Your task to perform on an android device: What's the weather? Image 0: 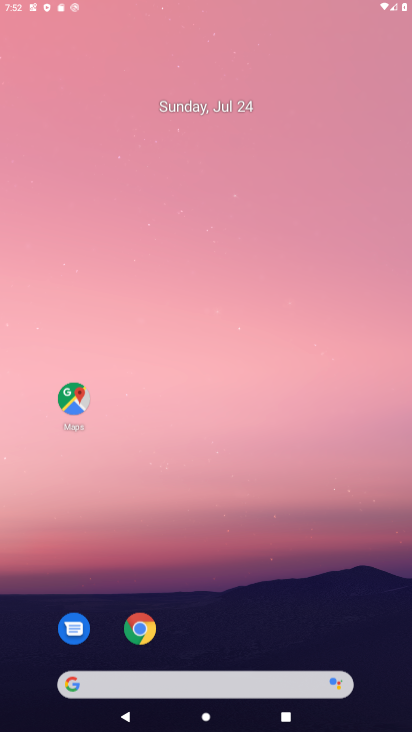
Step 0: drag from (195, 647) to (314, 95)
Your task to perform on an android device: What's the weather? Image 1: 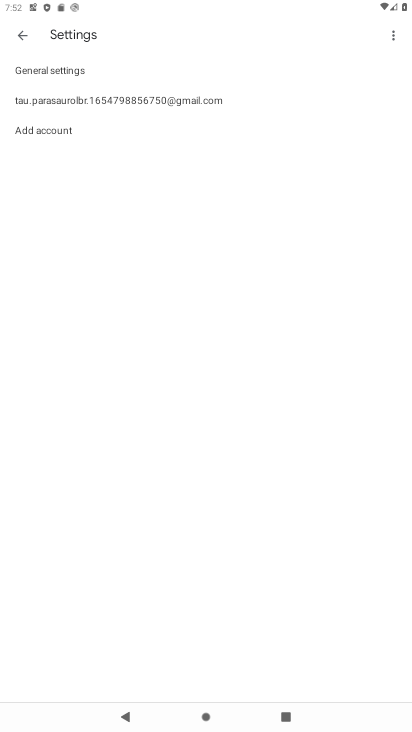
Step 1: click (18, 37)
Your task to perform on an android device: What's the weather? Image 2: 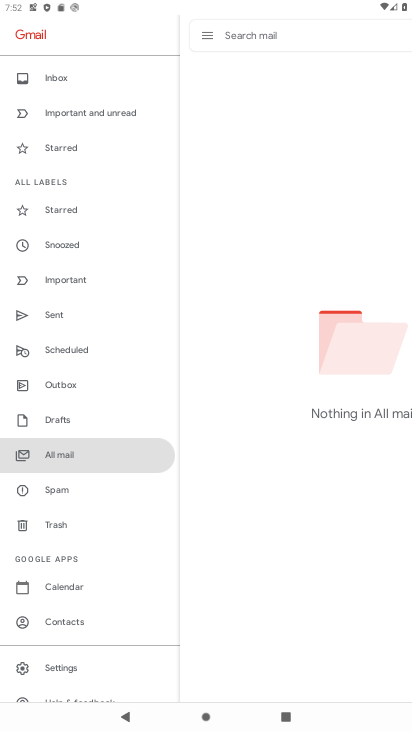
Step 2: press home button
Your task to perform on an android device: What's the weather? Image 3: 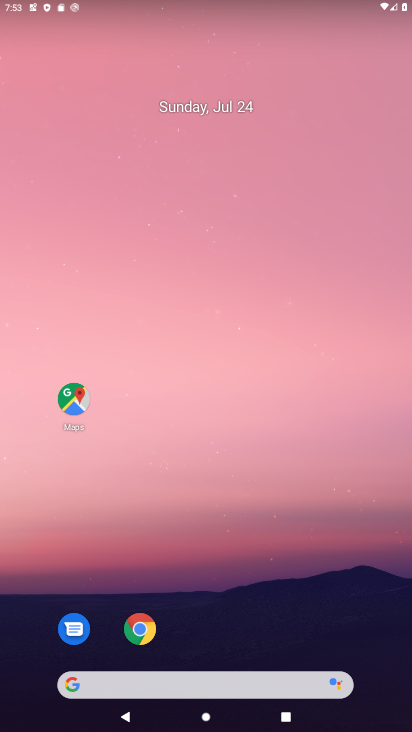
Step 3: drag from (223, 669) to (260, 243)
Your task to perform on an android device: What's the weather? Image 4: 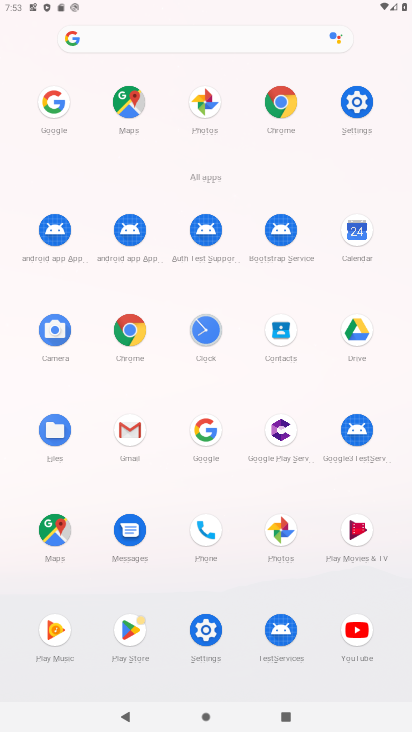
Step 4: click (200, 450)
Your task to perform on an android device: What's the weather? Image 5: 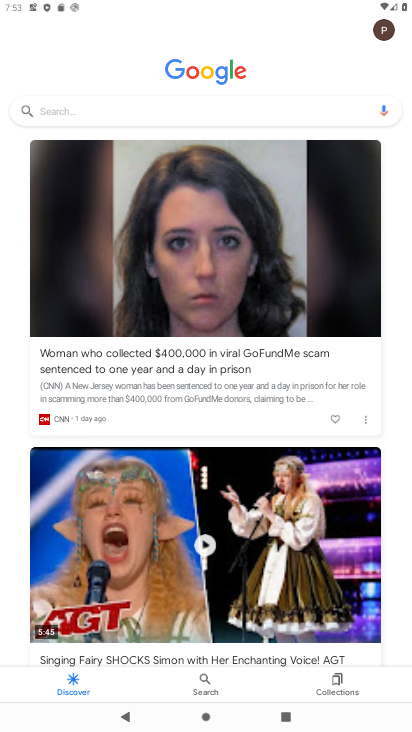
Step 5: click (174, 122)
Your task to perform on an android device: What's the weather? Image 6: 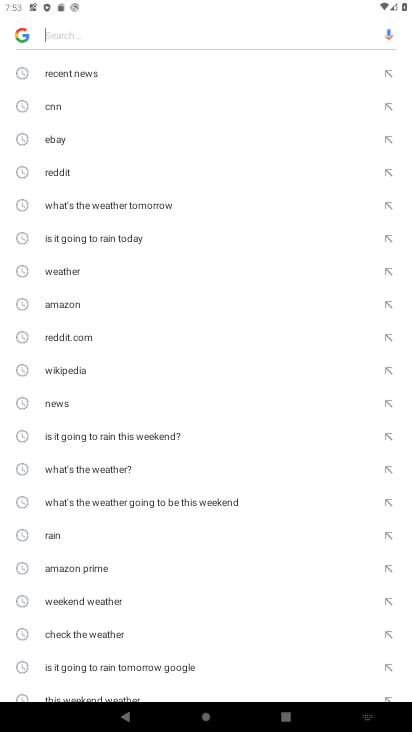
Step 6: type "weather"
Your task to perform on an android device: What's the weather? Image 7: 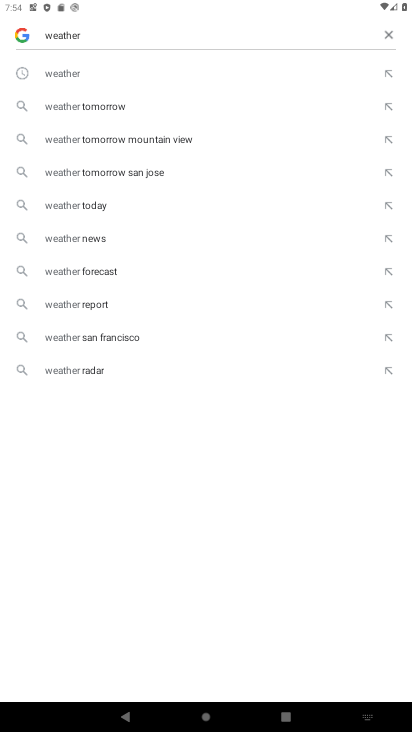
Step 7: click (47, 79)
Your task to perform on an android device: What's the weather? Image 8: 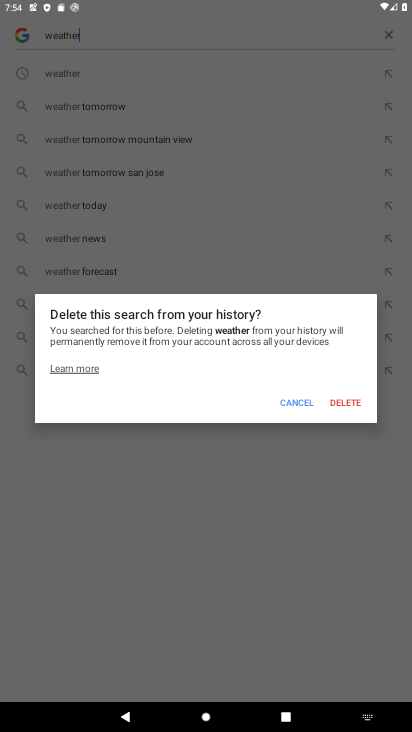
Step 8: click (302, 400)
Your task to perform on an android device: What's the weather? Image 9: 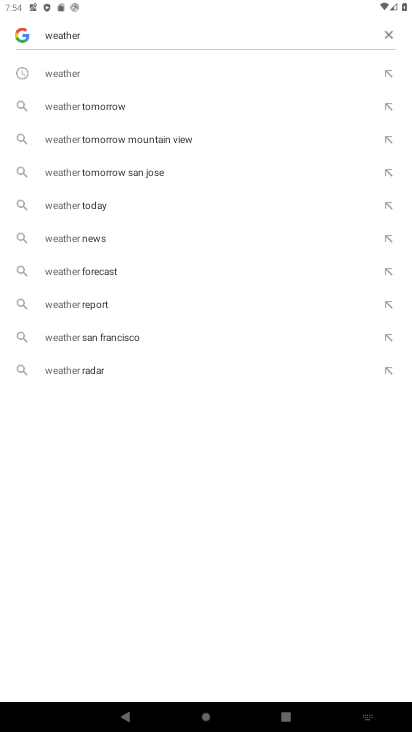
Step 9: click (84, 73)
Your task to perform on an android device: What's the weather? Image 10: 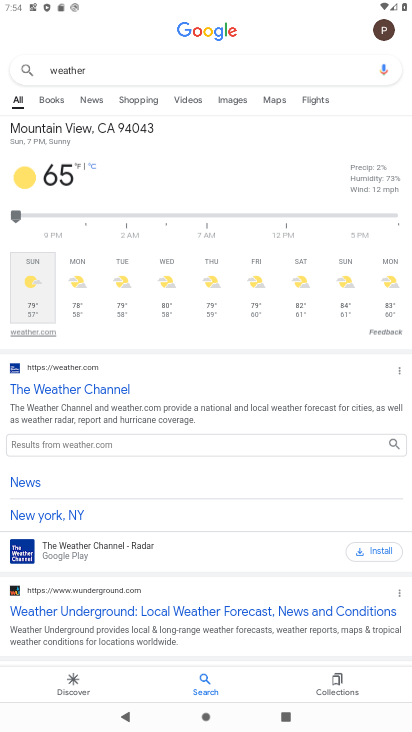
Step 10: task complete